Your task to perform on an android device: Search for a coffee table on IKEA Image 0: 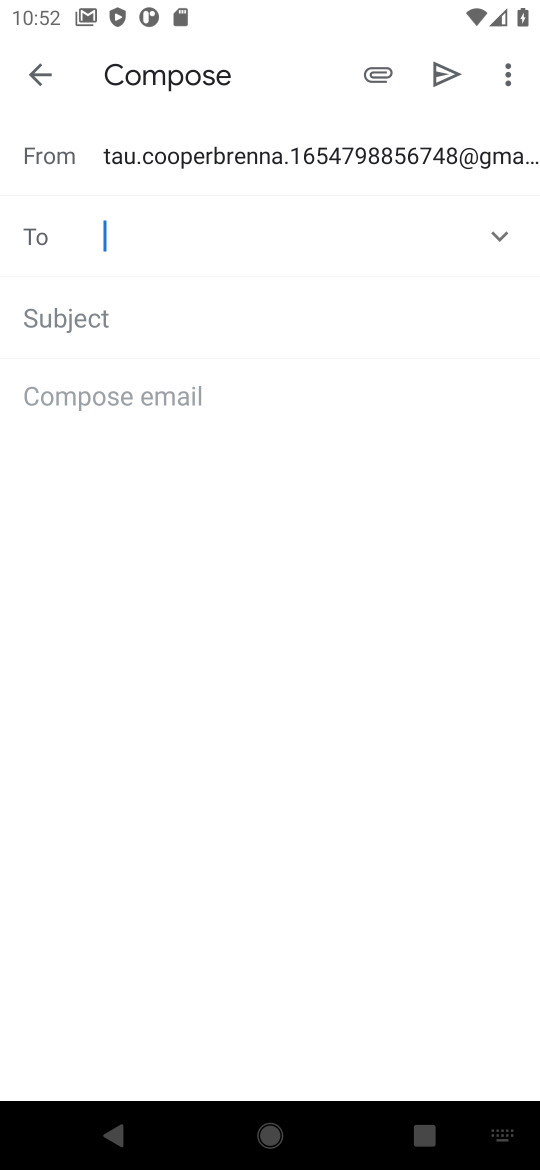
Step 0: press back button
Your task to perform on an android device: Search for a coffee table on IKEA Image 1: 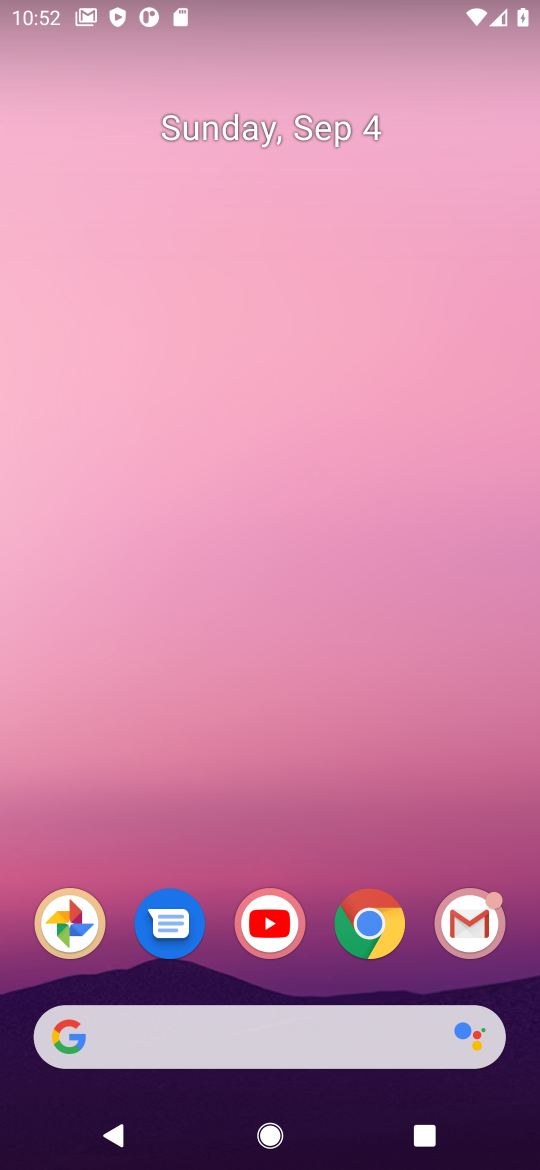
Step 1: click (383, 943)
Your task to perform on an android device: Search for a coffee table on IKEA Image 2: 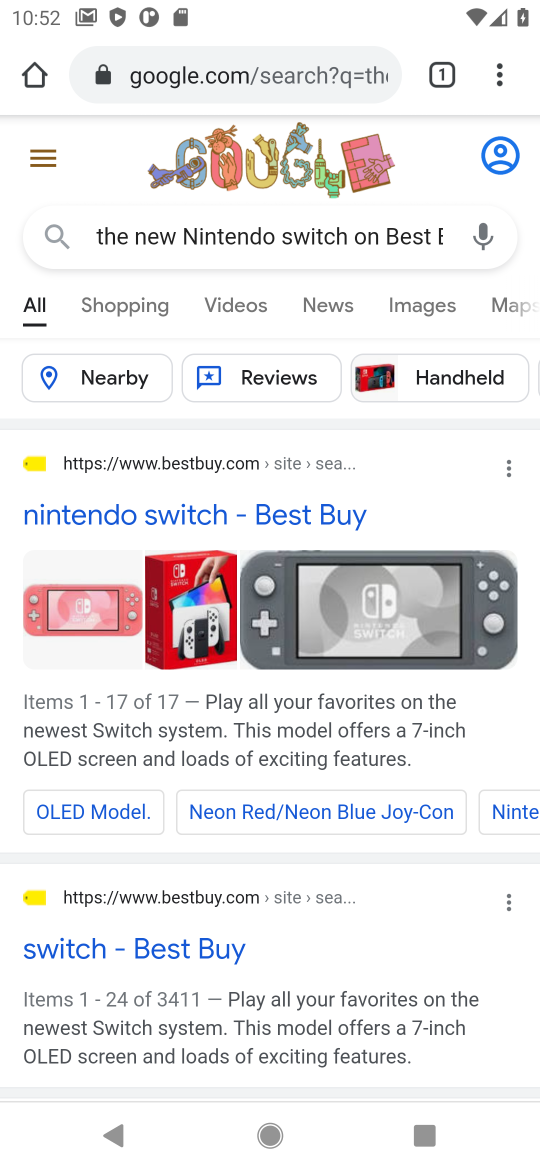
Step 2: click (151, 80)
Your task to perform on an android device: Search for a coffee table on IKEA Image 3: 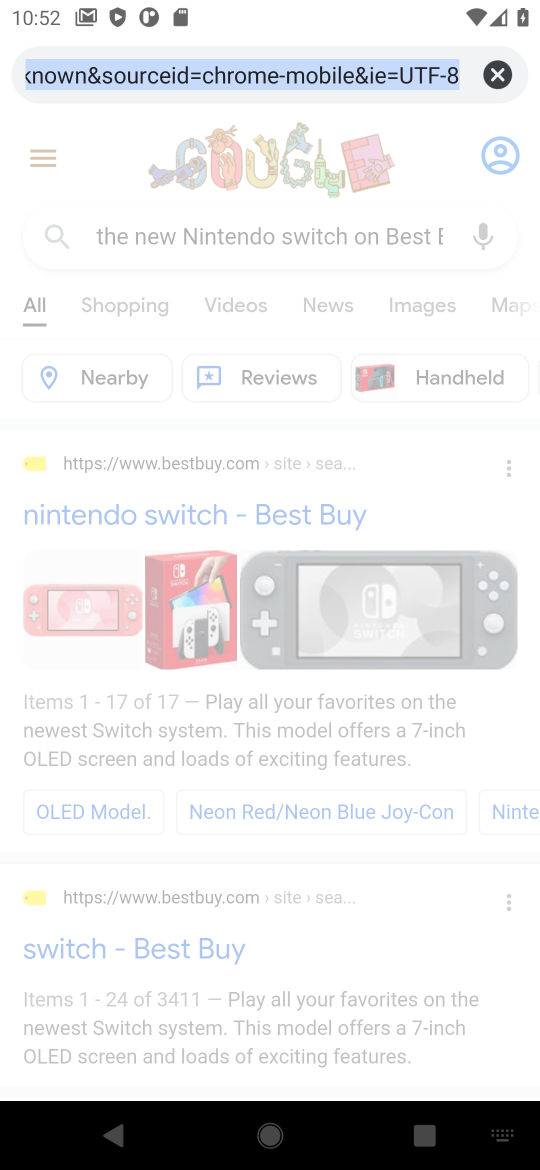
Step 3: click (489, 63)
Your task to perform on an android device: Search for a coffee table on IKEA Image 4: 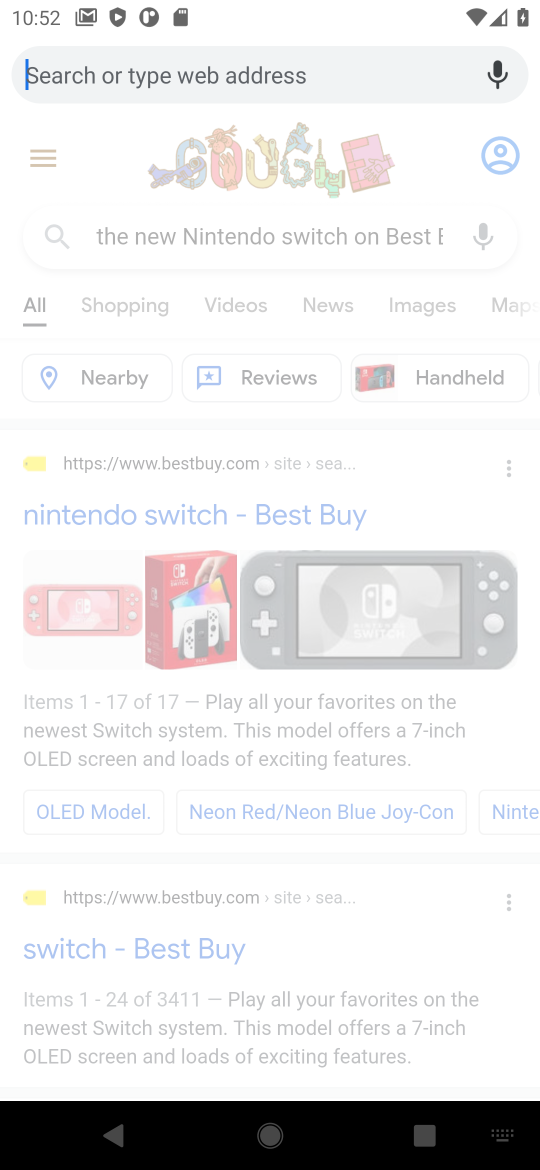
Step 4: type "coffee table on IKEA"
Your task to perform on an android device: Search for a coffee table on IKEA Image 5: 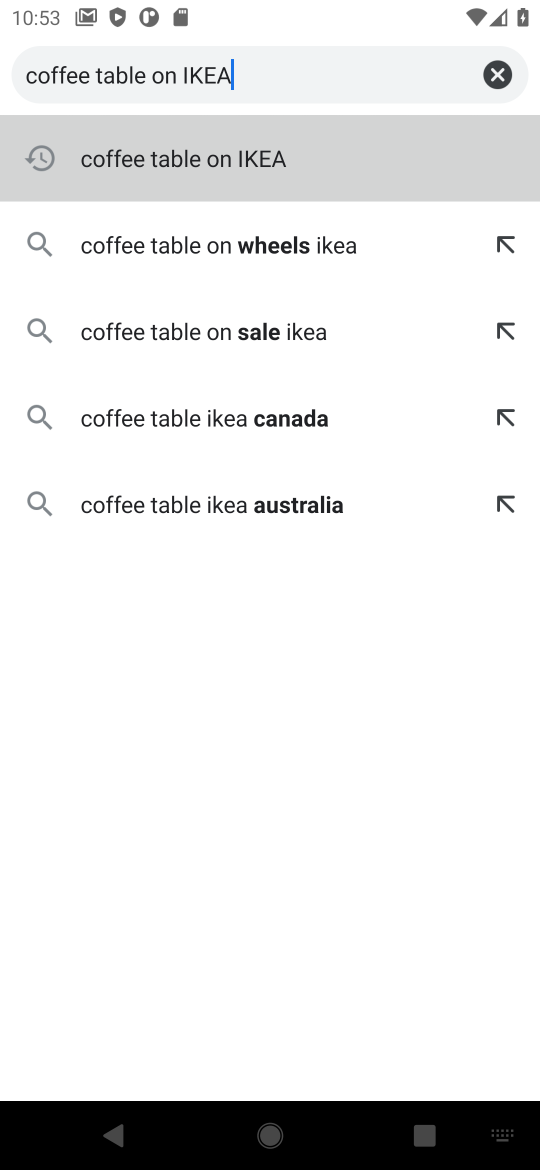
Step 5: click (88, 147)
Your task to perform on an android device: Search for a coffee table on IKEA Image 6: 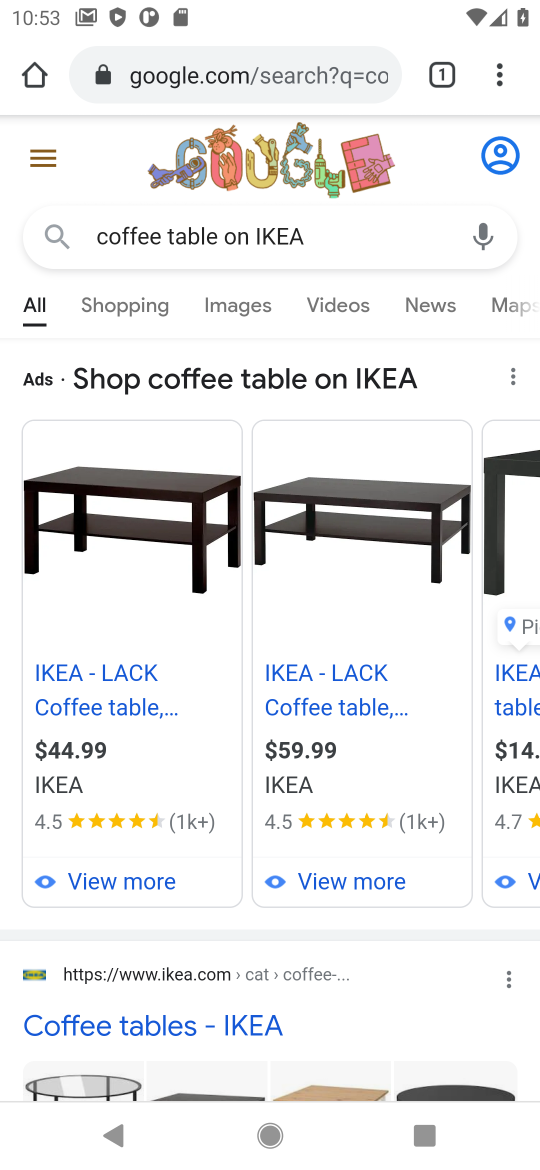
Step 6: task complete